Your task to perform on an android device: Open the calendar and show me this week's events? Image 0: 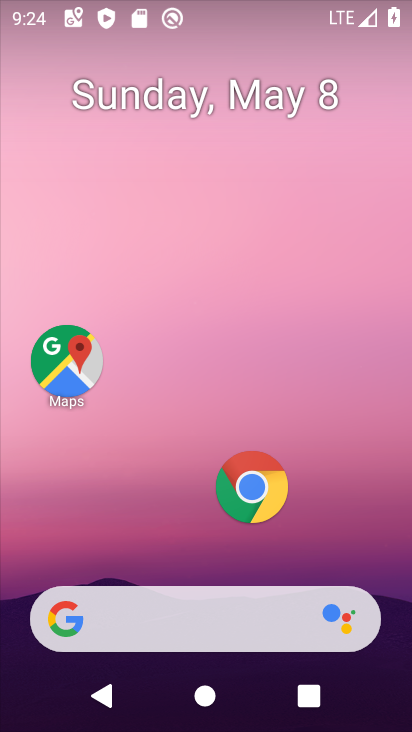
Step 0: drag from (160, 496) to (194, 48)
Your task to perform on an android device: Open the calendar and show me this week's events? Image 1: 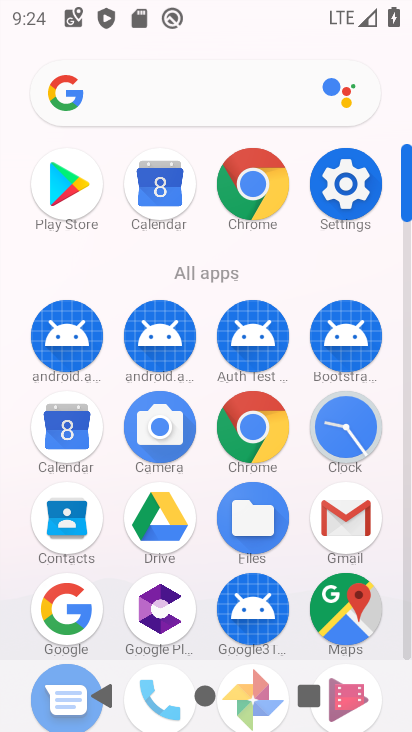
Step 1: click (162, 197)
Your task to perform on an android device: Open the calendar and show me this week's events? Image 2: 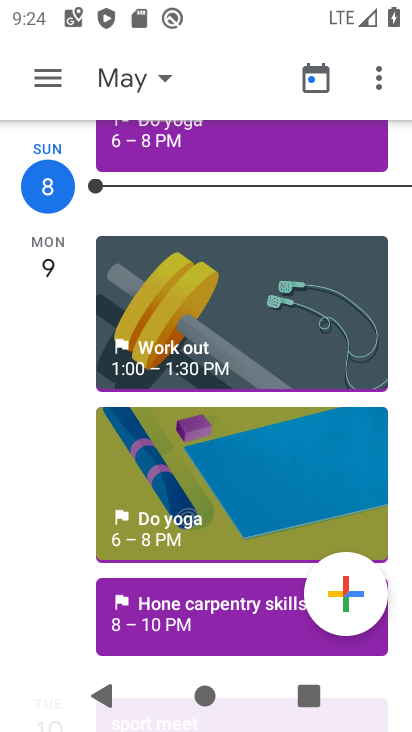
Step 2: click (40, 80)
Your task to perform on an android device: Open the calendar and show me this week's events? Image 3: 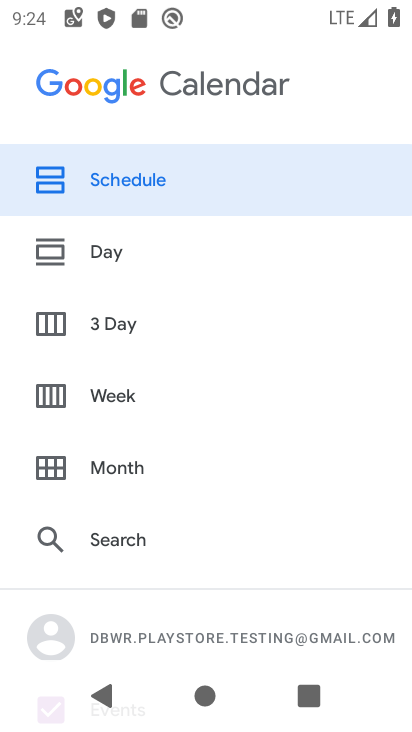
Step 3: click (56, 399)
Your task to perform on an android device: Open the calendar and show me this week's events? Image 4: 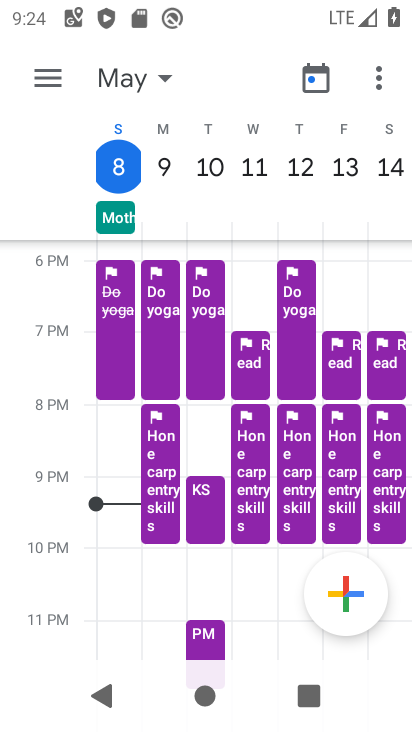
Step 4: task complete